Your task to perform on an android device: Go to settings Image 0: 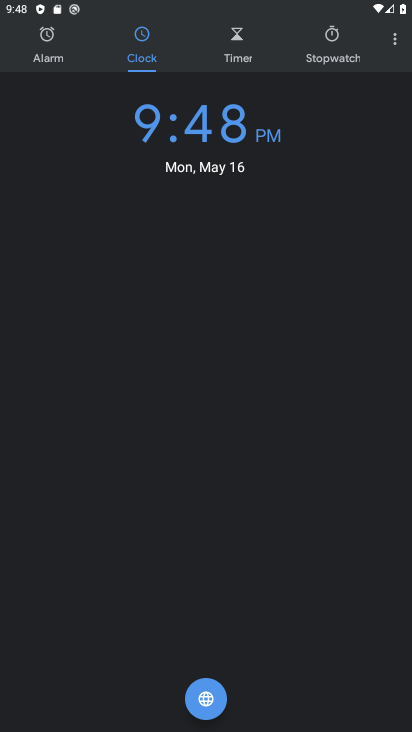
Step 0: press home button
Your task to perform on an android device: Go to settings Image 1: 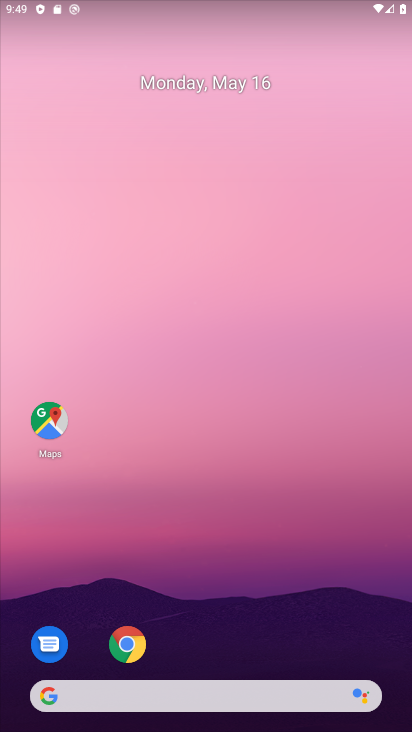
Step 1: drag from (29, 676) to (337, 50)
Your task to perform on an android device: Go to settings Image 2: 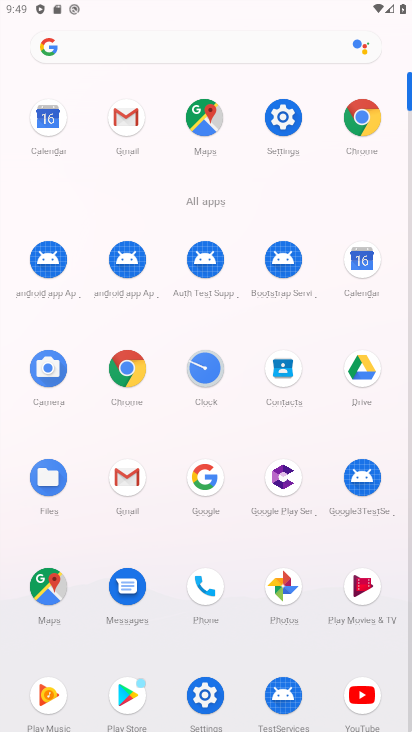
Step 2: click (277, 127)
Your task to perform on an android device: Go to settings Image 3: 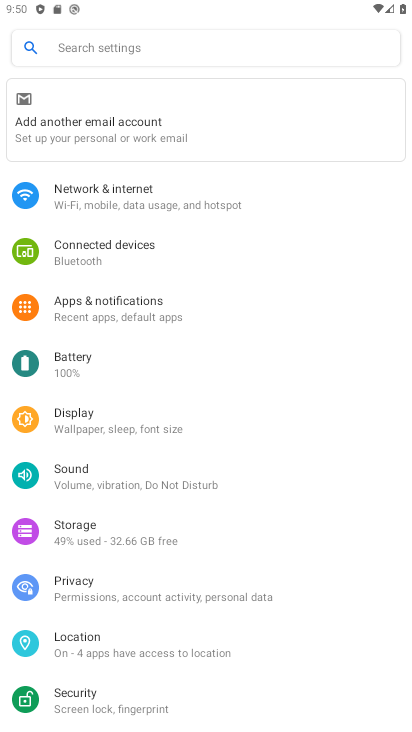
Step 3: task complete